Your task to perform on an android device: Search for seafood restaurants on Google Maps Image 0: 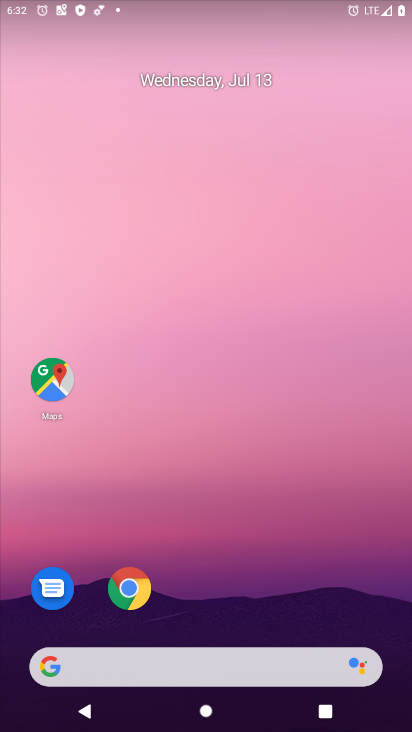
Step 0: click (51, 391)
Your task to perform on an android device: Search for seafood restaurants on Google Maps Image 1: 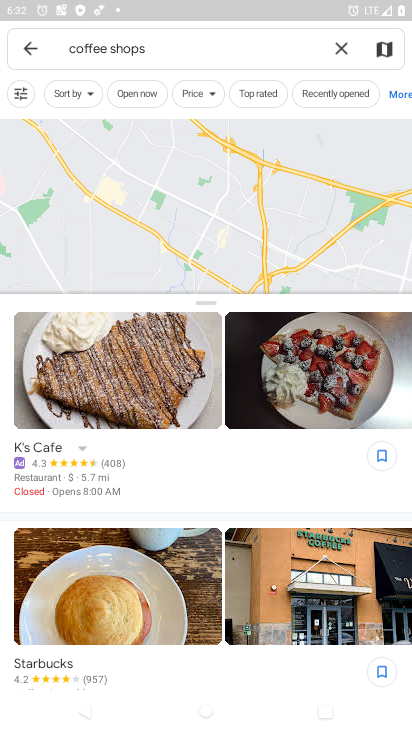
Step 1: click (338, 50)
Your task to perform on an android device: Search for seafood restaurants on Google Maps Image 2: 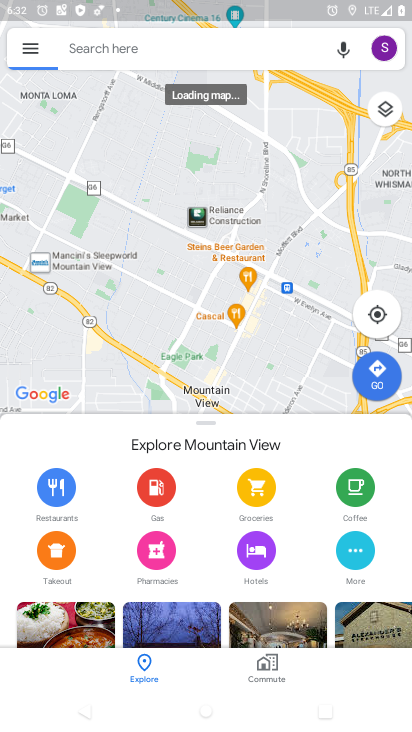
Step 2: click (178, 50)
Your task to perform on an android device: Search for seafood restaurants on Google Maps Image 3: 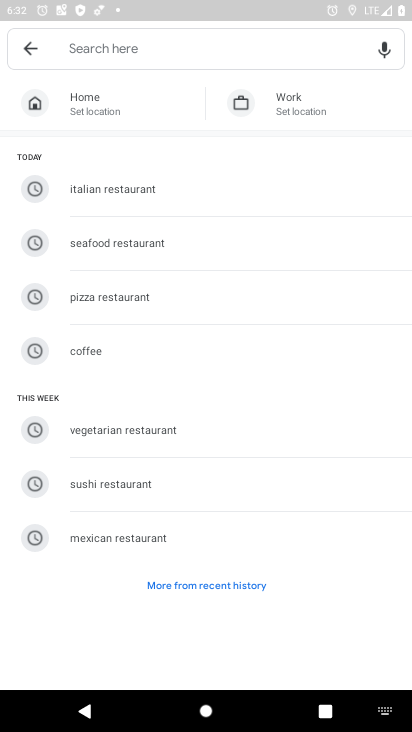
Step 3: type "seafood restaurants "
Your task to perform on an android device: Search for seafood restaurants on Google Maps Image 4: 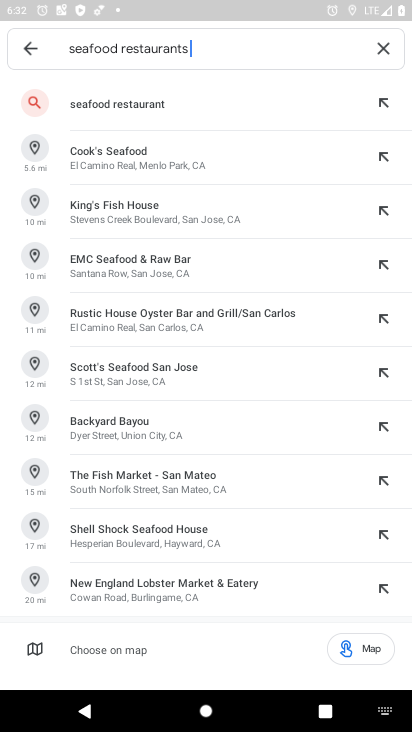
Step 4: click (136, 110)
Your task to perform on an android device: Search for seafood restaurants on Google Maps Image 5: 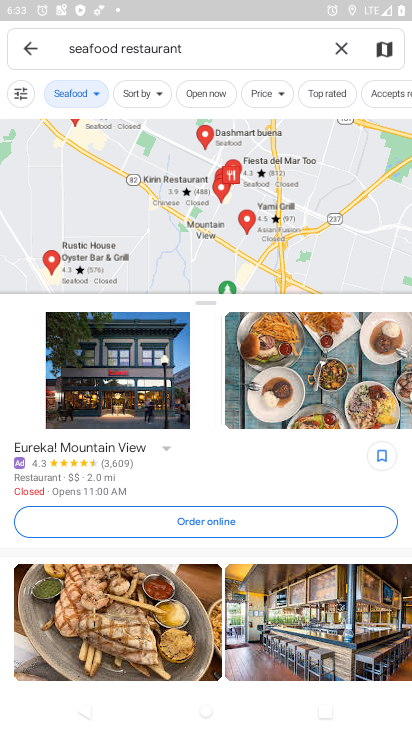
Step 5: task complete